Your task to perform on an android device: clear history in the chrome app Image 0: 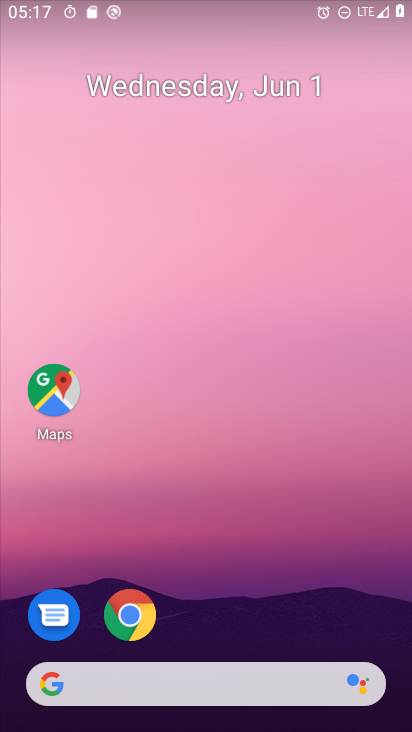
Step 0: drag from (361, 549) to (326, 6)
Your task to perform on an android device: clear history in the chrome app Image 1: 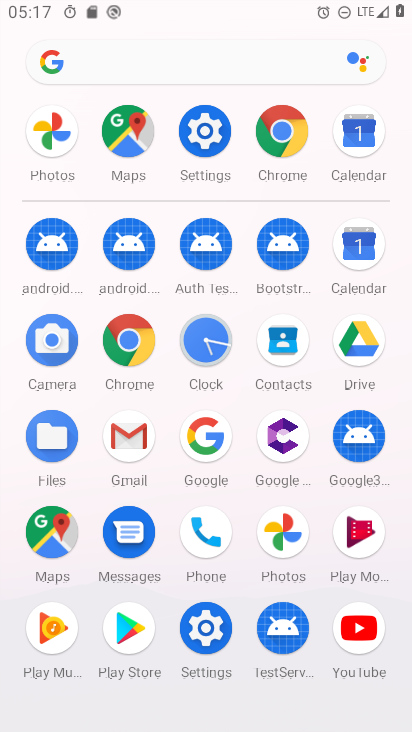
Step 1: click (139, 344)
Your task to perform on an android device: clear history in the chrome app Image 2: 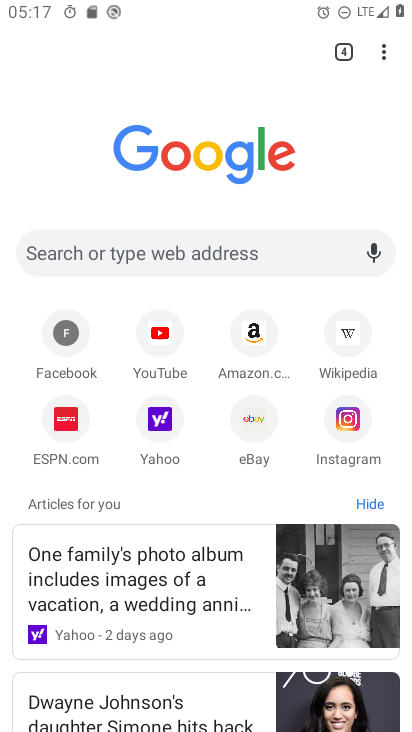
Step 2: drag from (387, 53) to (224, 295)
Your task to perform on an android device: clear history in the chrome app Image 3: 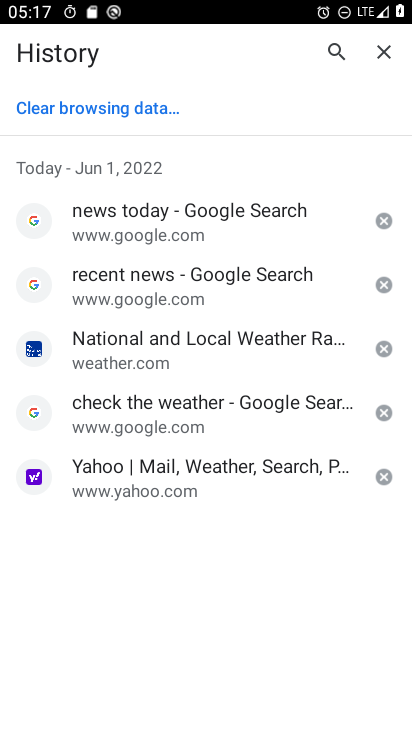
Step 3: click (147, 110)
Your task to perform on an android device: clear history in the chrome app Image 4: 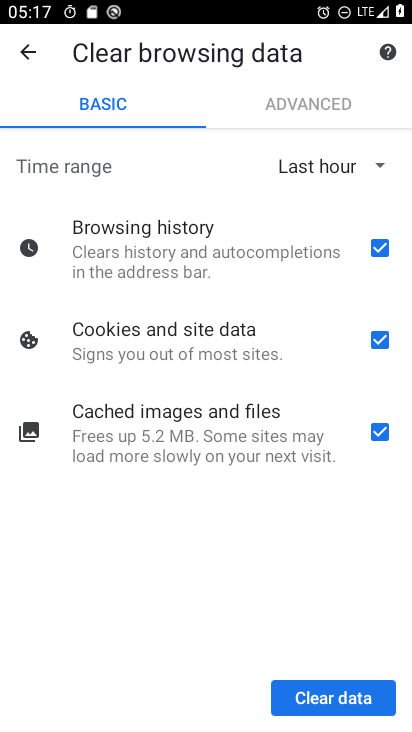
Step 4: click (336, 699)
Your task to perform on an android device: clear history in the chrome app Image 5: 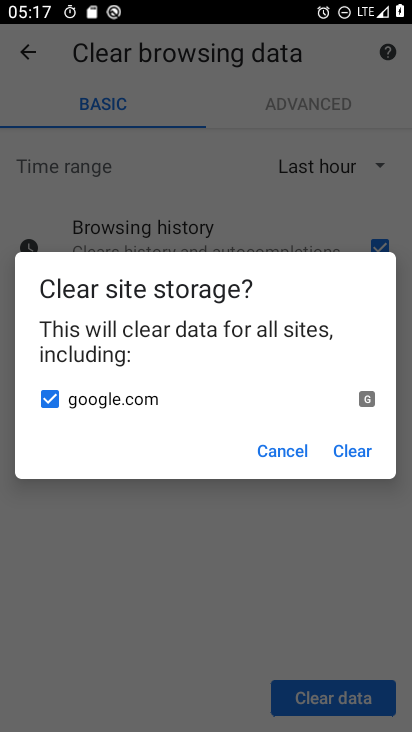
Step 5: click (351, 450)
Your task to perform on an android device: clear history in the chrome app Image 6: 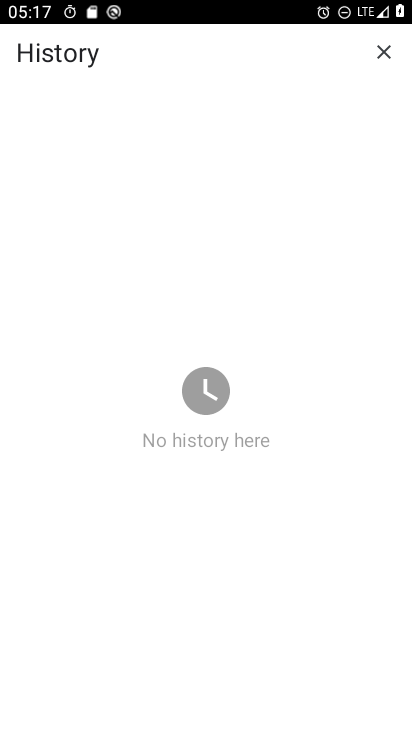
Step 6: task complete